Your task to perform on an android device: Open my contact list Image 0: 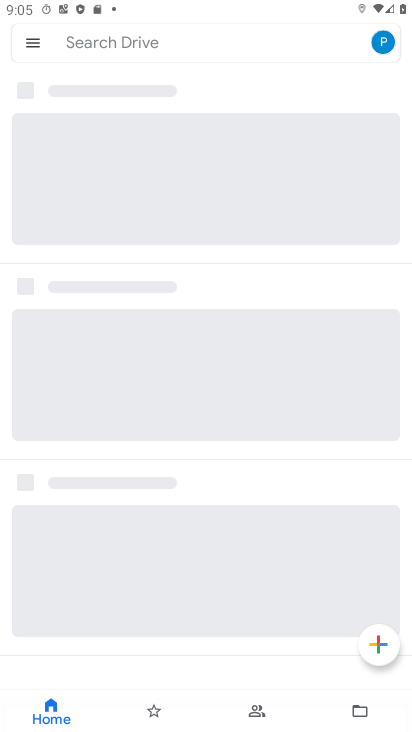
Step 0: press back button
Your task to perform on an android device: Open my contact list Image 1: 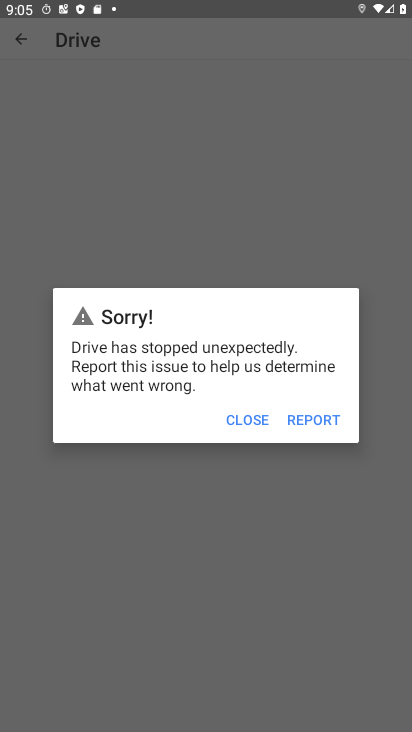
Step 1: click (263, 420)
Your task to perform on an android device: Open my contact list Image 2: 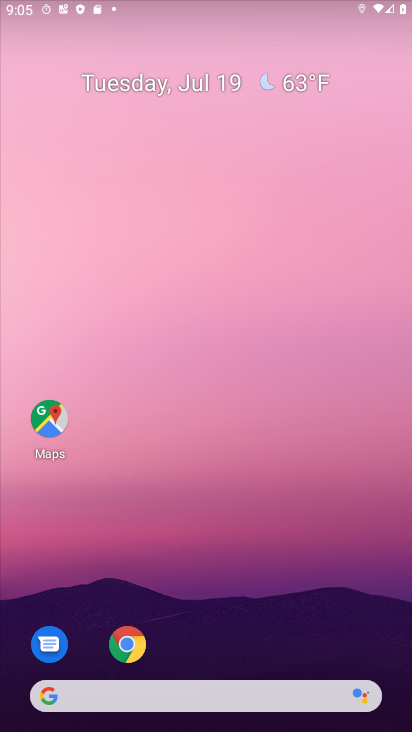
Step 2: drag from (215, 564) to (118, 121)
Your task to perform on an android device: Open my contact list Image 3: 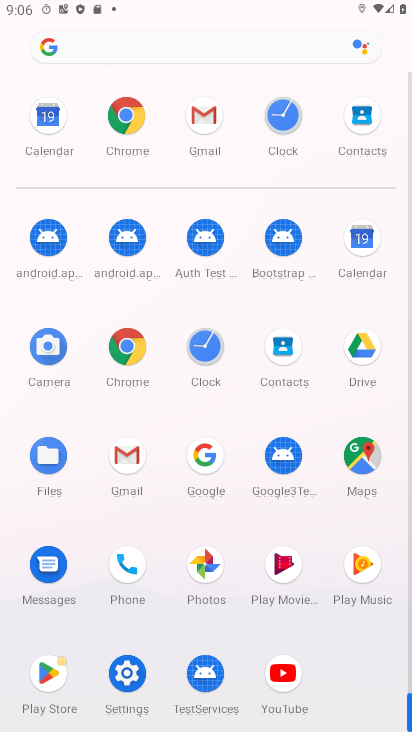
Step 3: click (274, 352)
Your task to perform on an android device: Open my contact list Image 4: 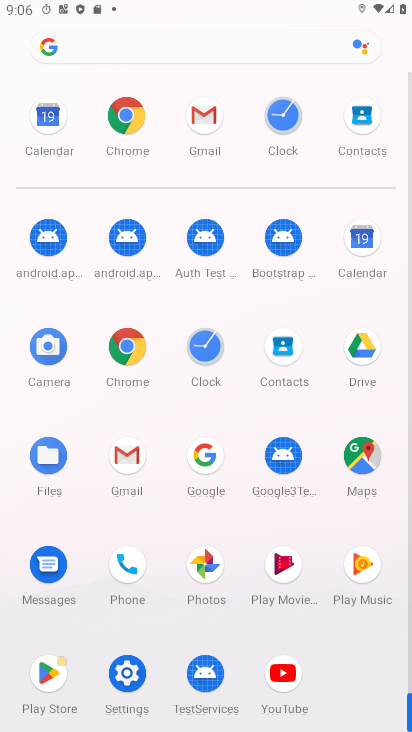
Step 4: click (274, 350)
Your task to perform on an android device: Open my contact list Image 5: 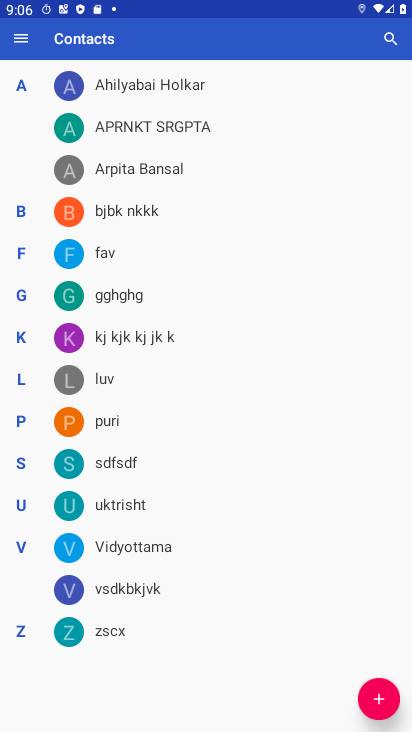
Step 5: task complete